Your task to perform on an android device: open device folders in google photos Image 0: 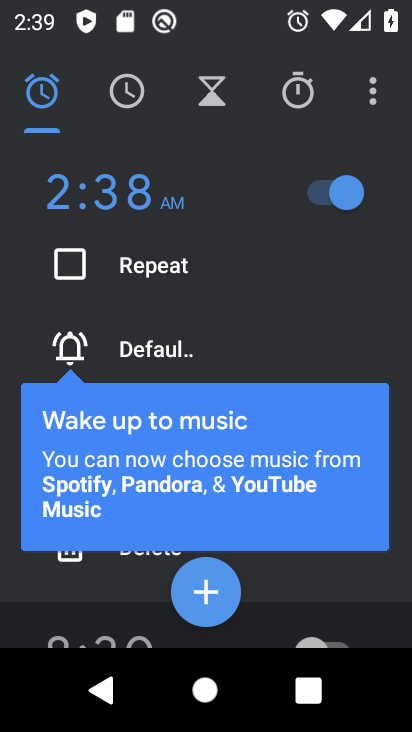
Step 0: press home button
Your task to perform on an android device: open device folders in google photos Image 1: 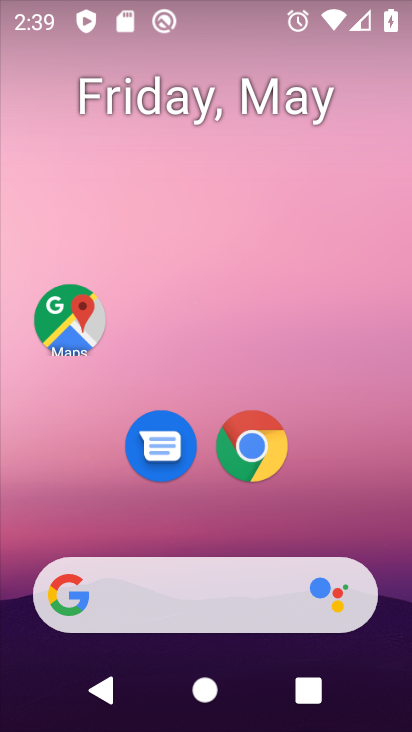
Step 1: drag from (379, 555) to (325, 98)
Your task to perform on an android device: open device folders in google photos Image 2: 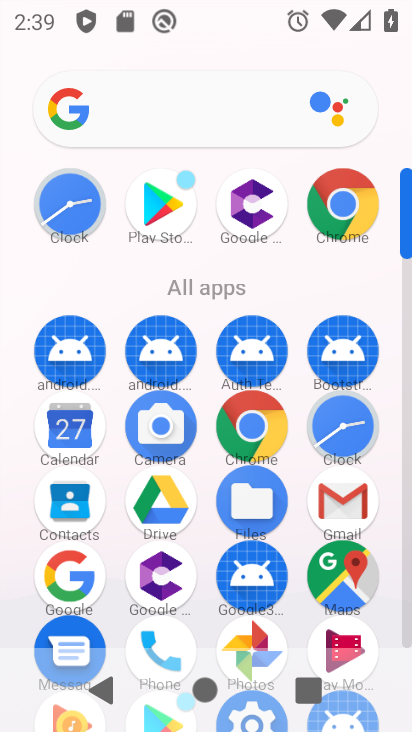
Step 2: click (406, 639)
Your task to perform on an android device: open device folders in google photos Image 3: 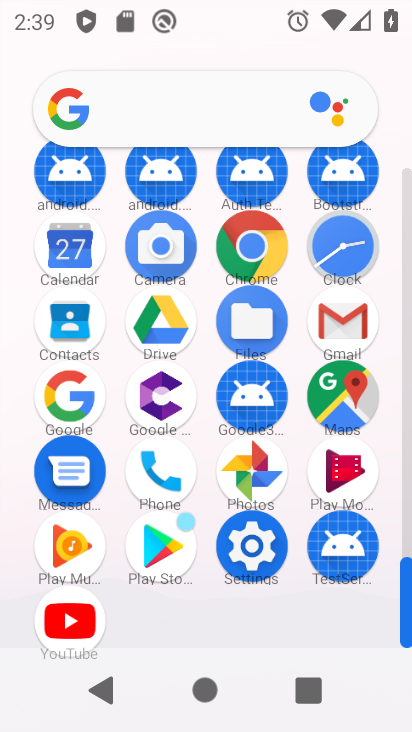
Step 3: click (257, 469)
Your task to perform on an android device: open device folders in google photos Image 4: 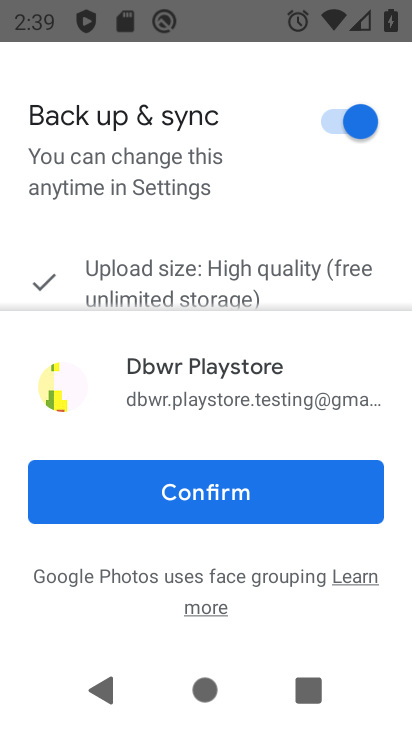
Step 4: click (259, 499)
Your task to perform on an android device: open device folders in google photos Image 5: 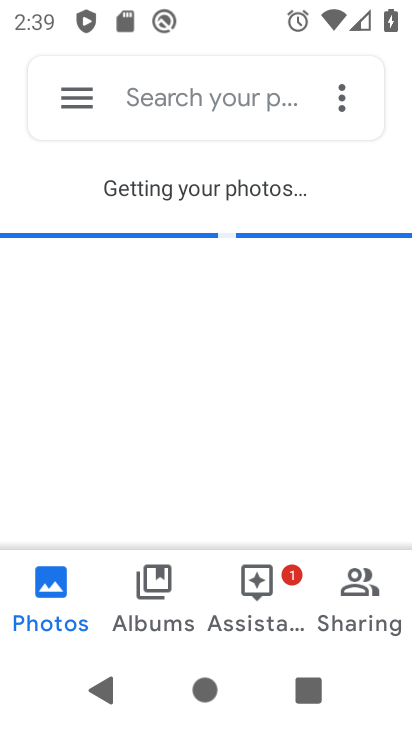
Step 5: click (81, 95)
Your task to perform on an android device: open device folders in google photos Image 6: 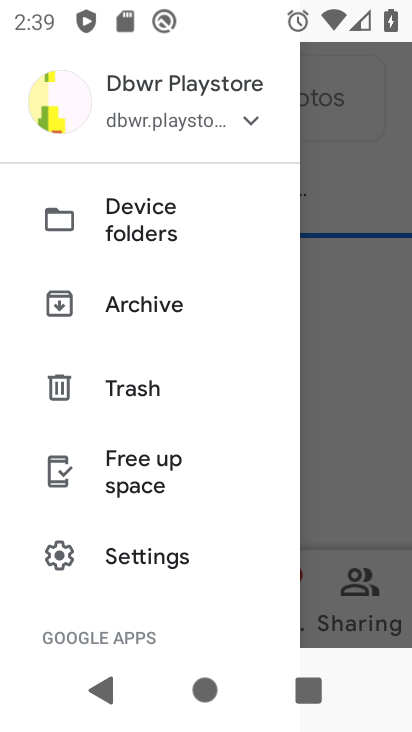
Step 6: click (142, 222)
Your task to perform on an android device: open device folders in google photos Image 7: 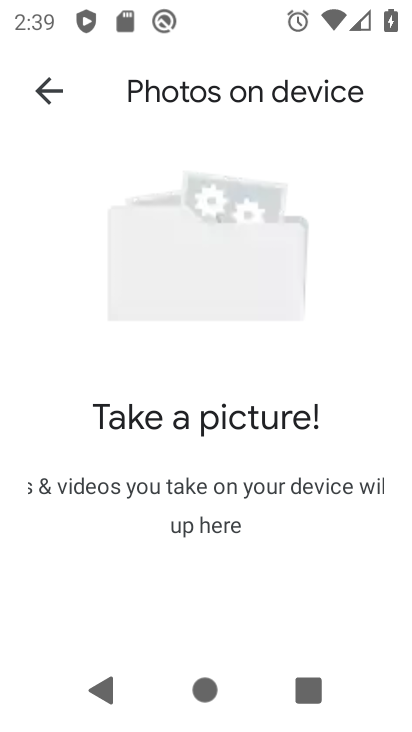
Step 7: task complete